Your task to perform on an android device: show emergency info Image 0: 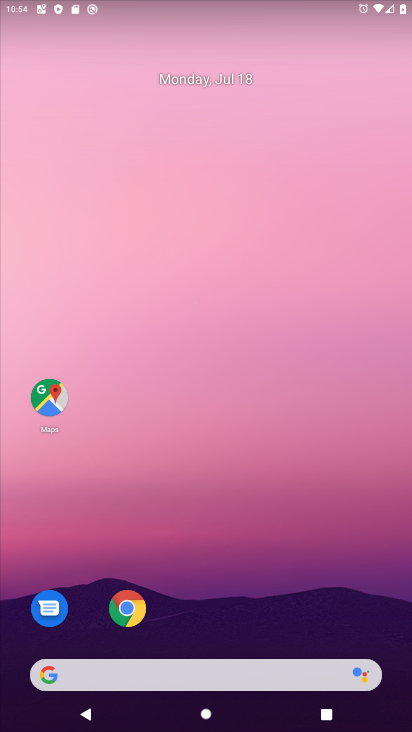
Step 0: drag from (232, 590) to (292, 252)
Your task to perform on an android device: show emergency info Image 1: 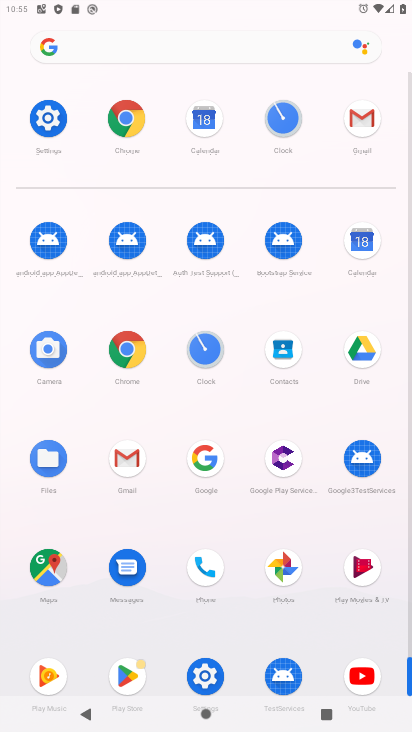
Step 1: click (219, 664)
Your task to perform on an android device: show emergency info Image 2: 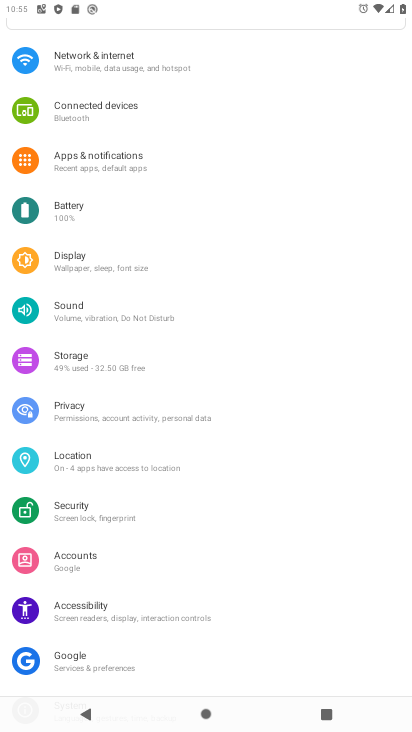
Step 2: drag from (164, 626) to (222, 291)
Your task to perform on an android device: show emergency info Image 3: 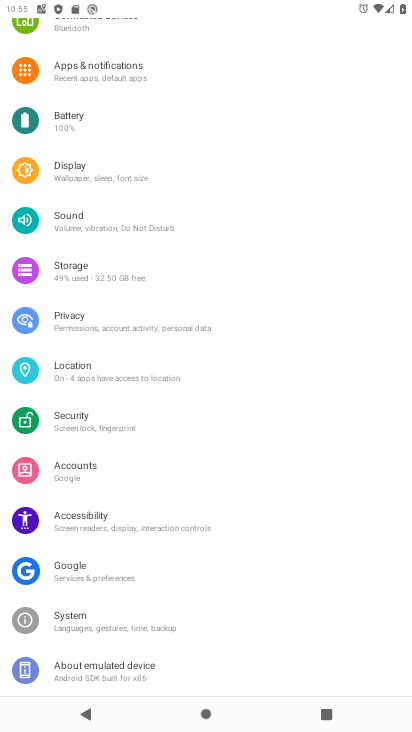
Step 3: click (106, 670)
Your task to perform on an android device: show emergency info Image 4: 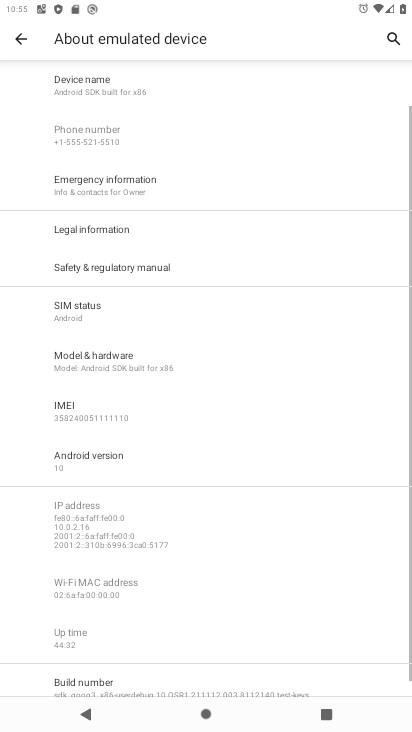
Step 4: click (138, 181)
Your task to perform on an android device: show emergency info Image 5: 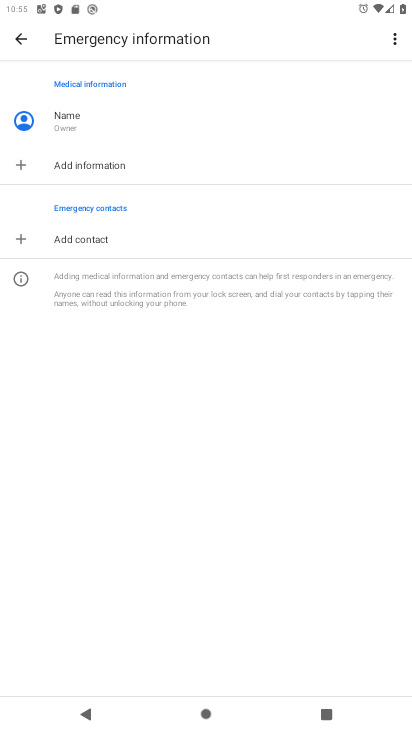
Step 5: task complete